Your task to perform on an android device: Go to network settings Image 0: 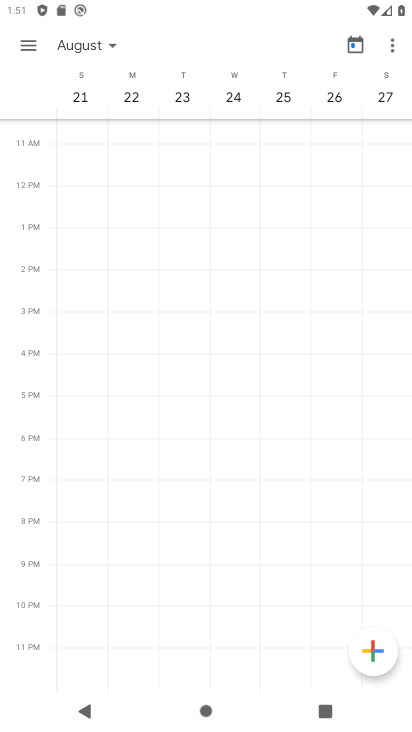
Step 0: press home button
Your task to perform on an android device: Go to network settings Image 1: 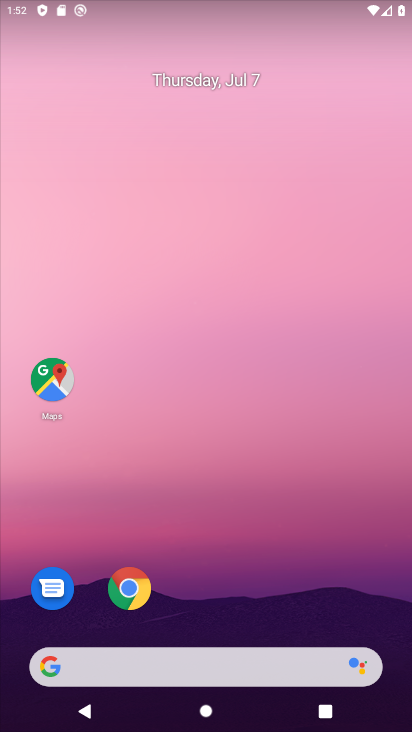
Step 1: drag from (400, 659) to (354, 93)
Your task to perform on an android device: Go to network settings Image 2: 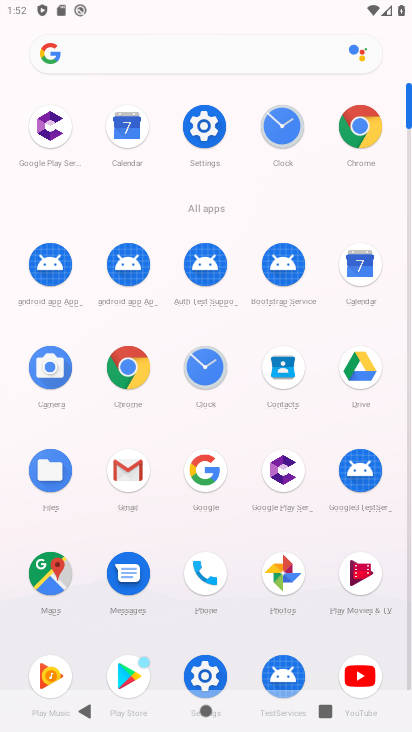
Step 2: click (409, 672)
Your task to perform on an android device: Go to network settings Image 3: 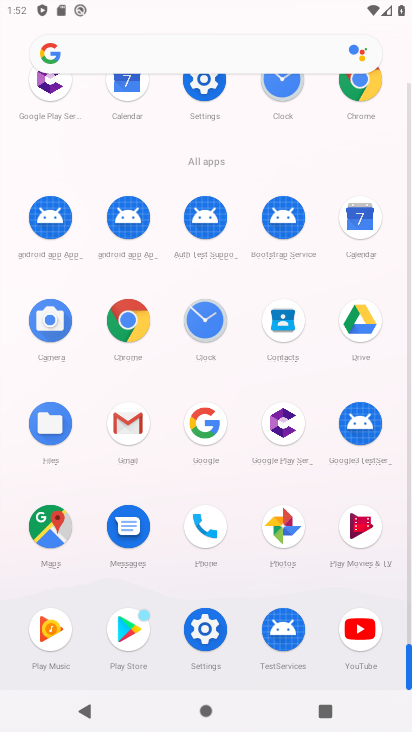
Step 3: click (204, 632)
Your task to perform on an android device: Go to network settings Image 4: 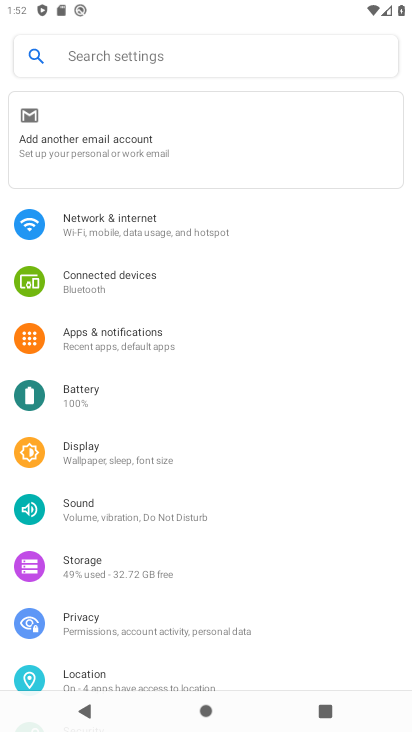
Step 4: click (100, 212)
Your task to perform on an android device: Go to network settings Image 5: 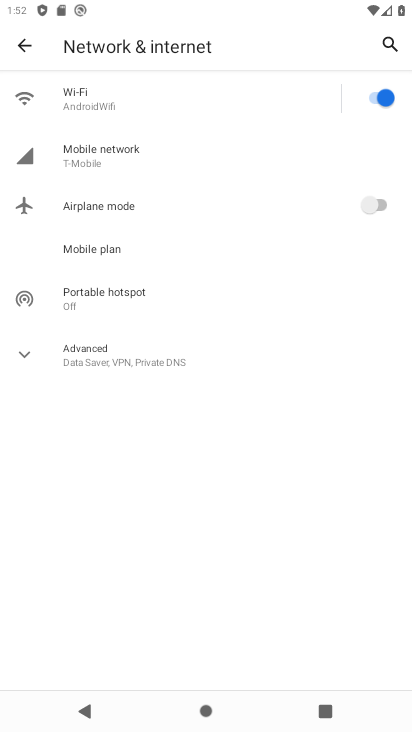
Step 5: click (25, 357)
Your task to perform on an android device: Go to network settings Image 6: 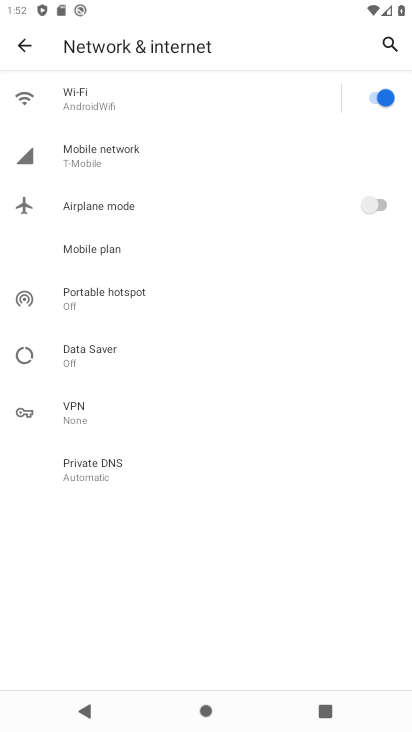
Step 6: click (96, 153)
Your task to perform on an android device: Go to network settings Image 7: 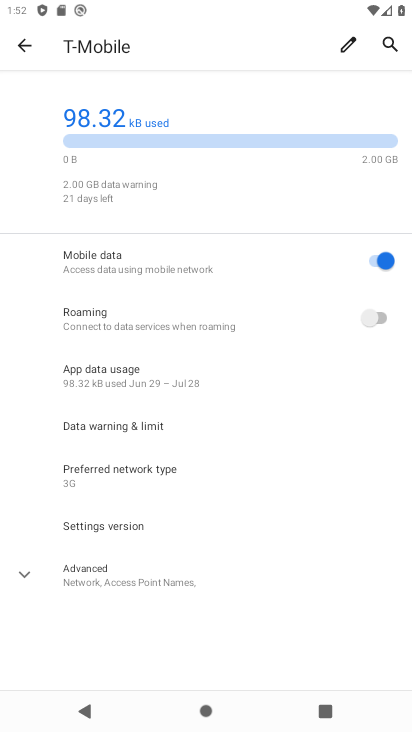
Step 7: click (24, 571)
Your task to perform on an android device: Go to network settings Image 8: 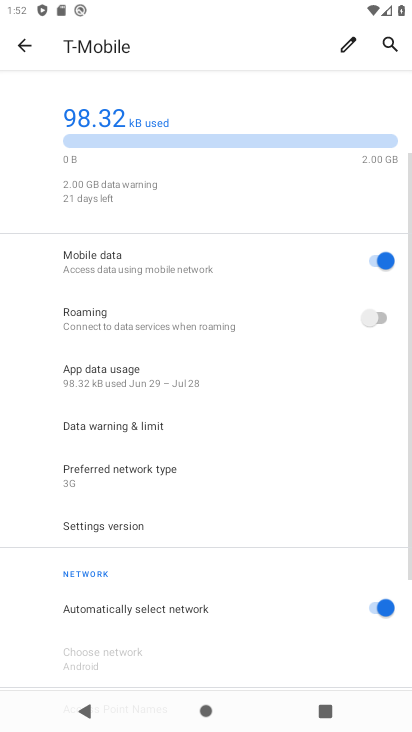
Step 8: task complete